Your task to perform on an android device: read, delete, or share a saved page in the chrome app Image 0: 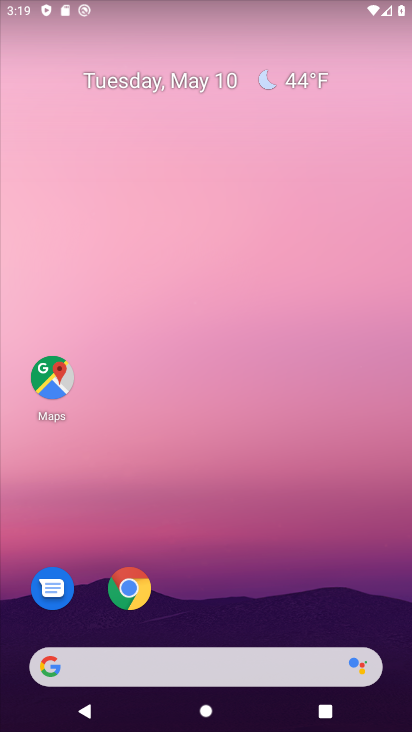
Step 0: click (133, 585)
Your task to perform on an android device: read, delete, or share a saved page in the chrome app Image 1: 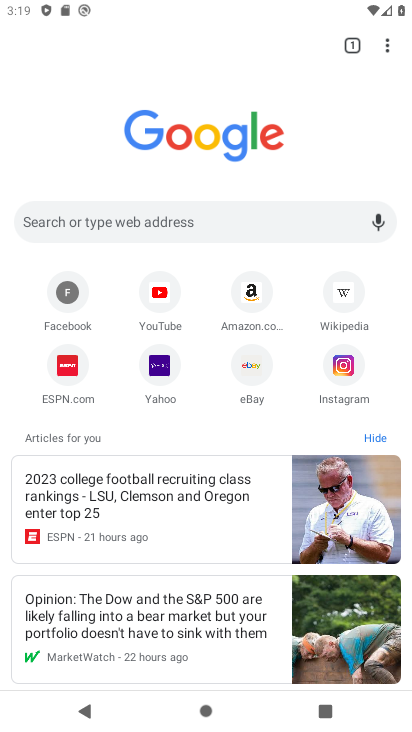
Step 1: click (384, 45)
Your task to perform on an android device: read, delete, or share a saved page in the chrome app Image 2: 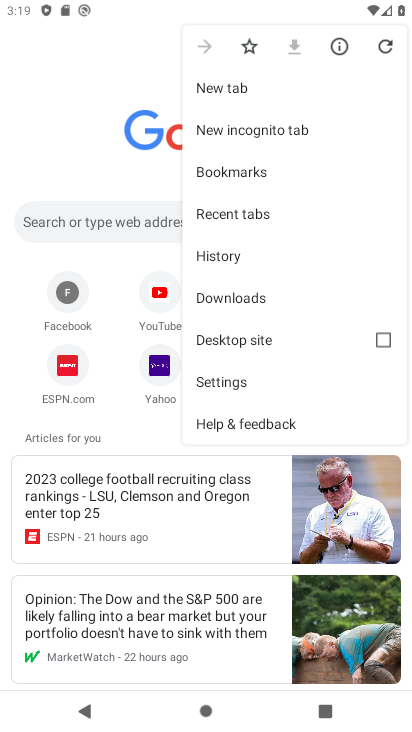
Step 2: click (240, 377)
Your task to perform on an android device: read, delete, or share a saved page in the chrome app Image 3: 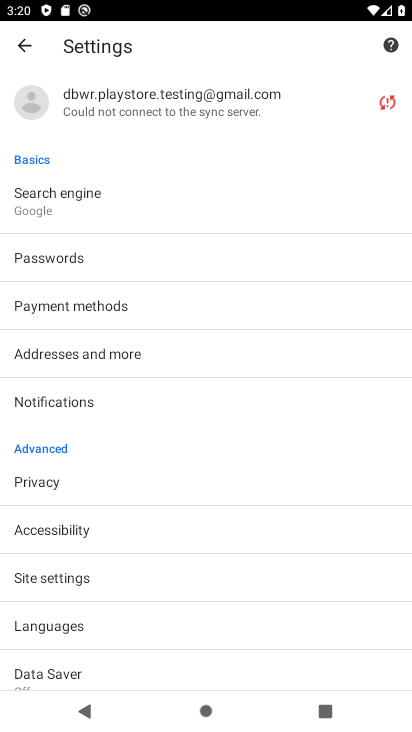
Step 3: task complete